Your task to perform on an android device: Open calendar and show me the first week of next month Image 0: 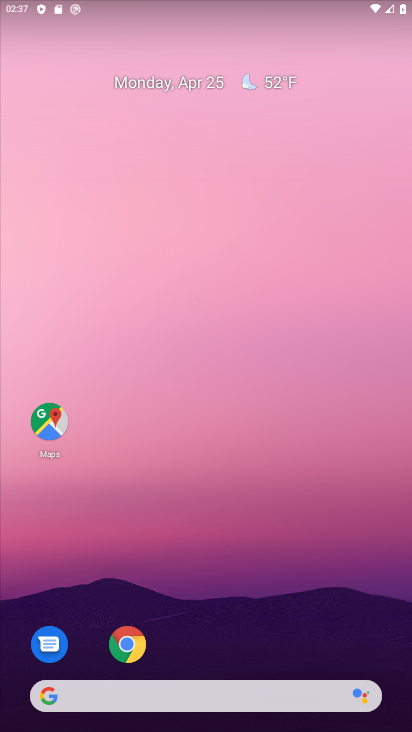
Step 0: drag from (261, 636) to (258, 2)
Your task to perform on an android device: Open calendar and show me the first week of next month Image 1: 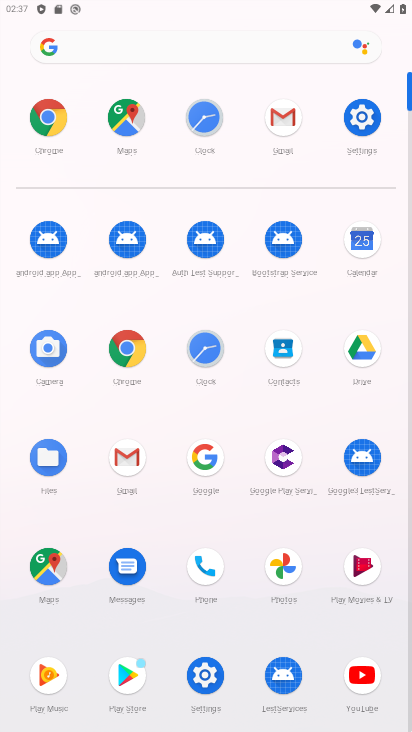
Step 1: click (358, 241)
Your task to perform on an android device: Open calendar and show me the first week of next month Image 2: 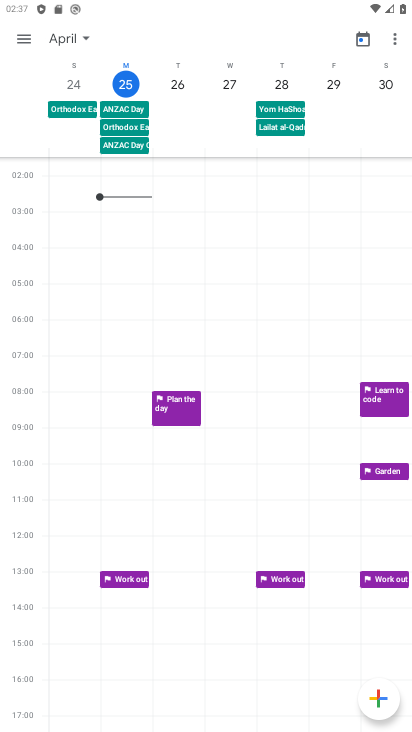
Step 2: click (65, 39)
Your task to perform on an android device: Open calendar and show me the first week of next month Image 3: 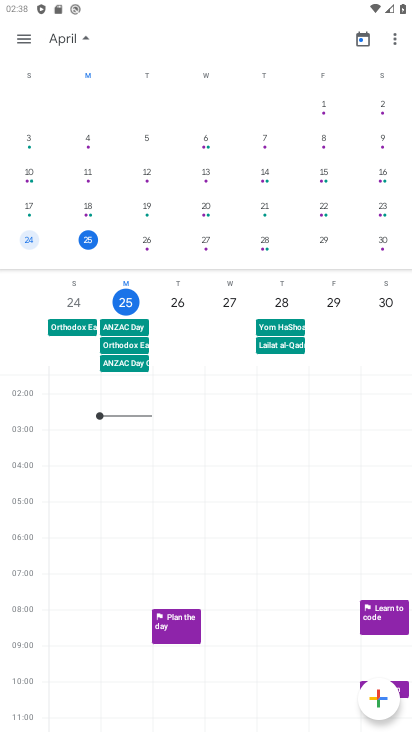
Step 3: drag from (381, 199) to (3, 157)
Your task to perform on an android device: Open calendar and show me the first week of next month Image 4: 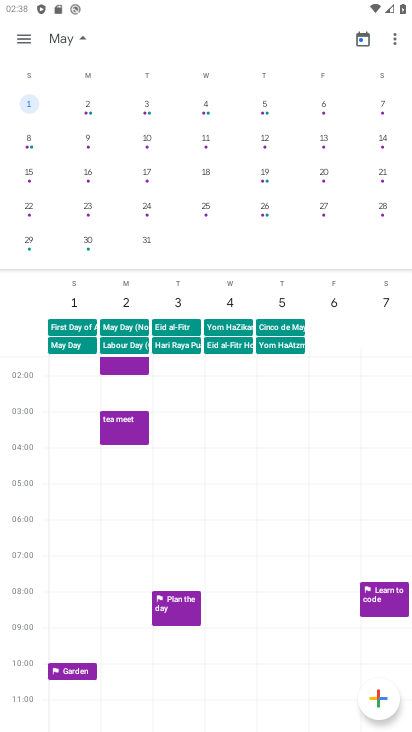
Step 4: click (78, 96)
Your task to perform on an android device: Open calendar and show me the first week of next month Image 5: 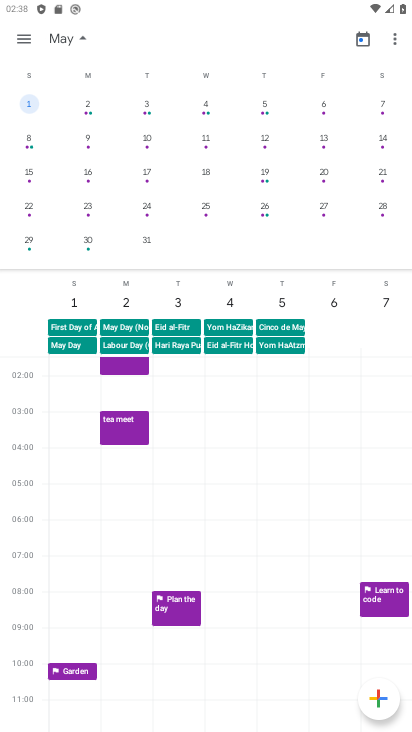
Step 5: task complete